Your task to perform on an android device: Open ESPN.com Image 0: 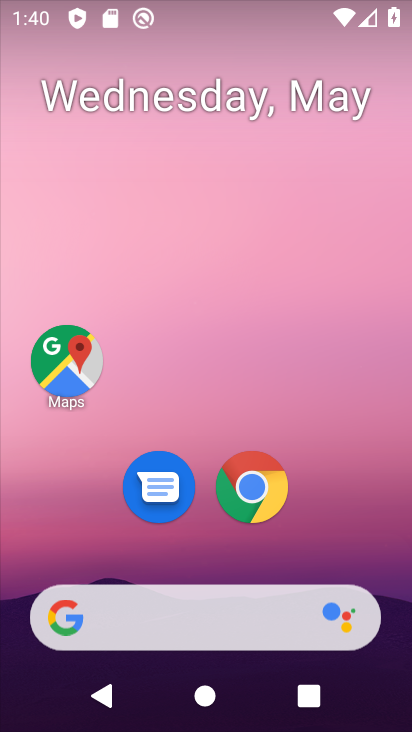
Step 0: click (244, 493)
Your task to perform on an android device: Open ESPN.com Image 1: 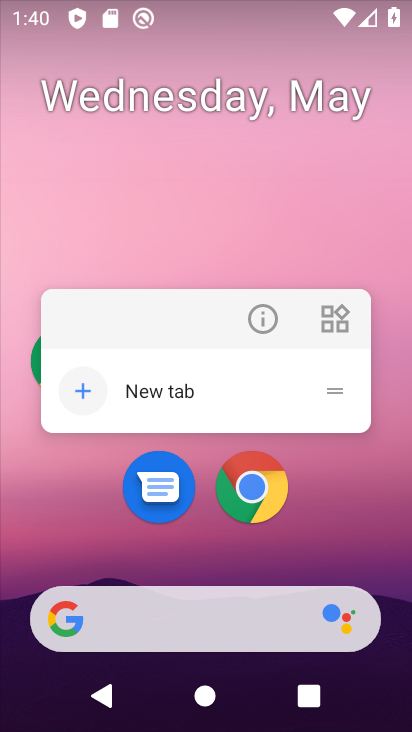
Step 1: click (255, 477)
Your task to perform on an android device: Open ESPN.com Image 2: 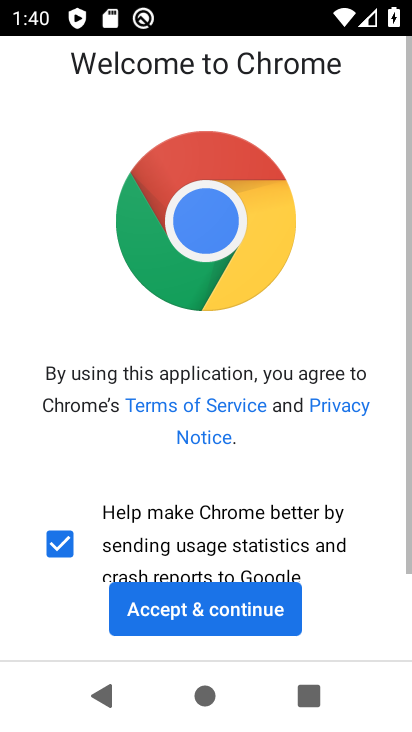
Step 2: click (260, 496)
Your task to perform on an android device: Open ESPN.com Image 3: 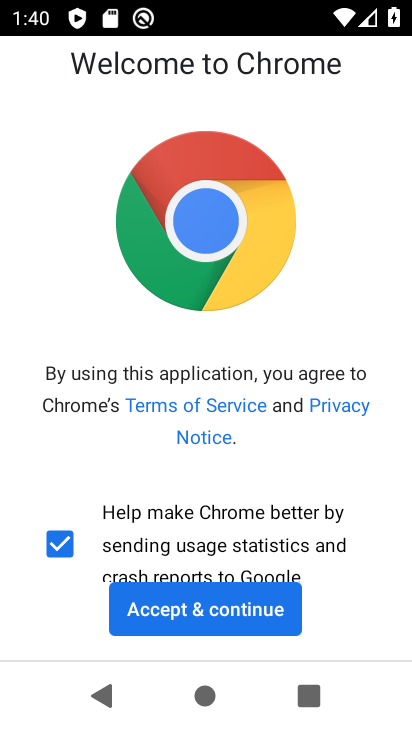
Step 3: click (154, 604)
Your task to perform on an android device: Open ESPN.com Image 4: 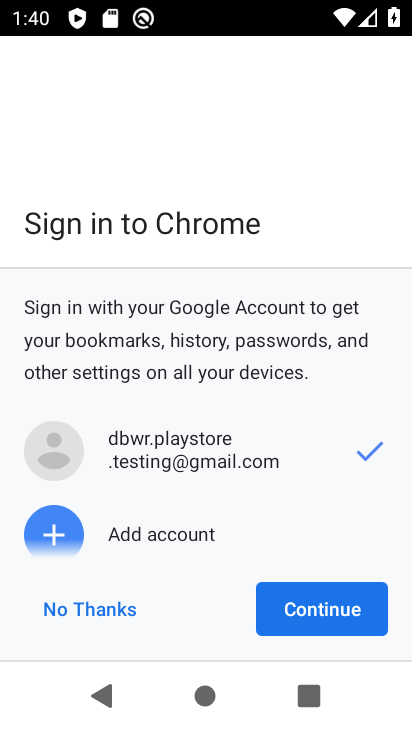
Step 4: click (327, 609)
Your task to perform on an android device: Open ESPN.com Image 5: 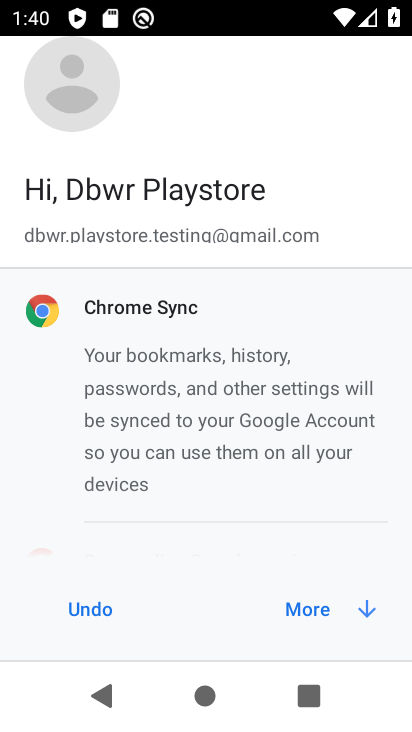
Step 5: click (307, 603)
Your task to perform on an android device: Open ESPN.com Image 6: 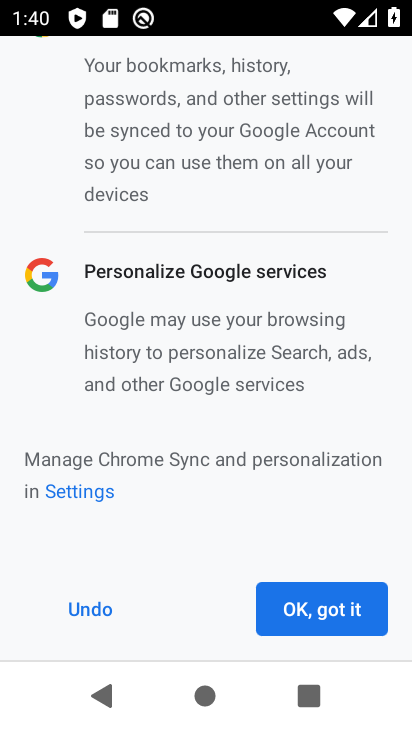
Step 6: click (307, 603)
Your task to perform on an android device: Open ESPN.com Image 7: 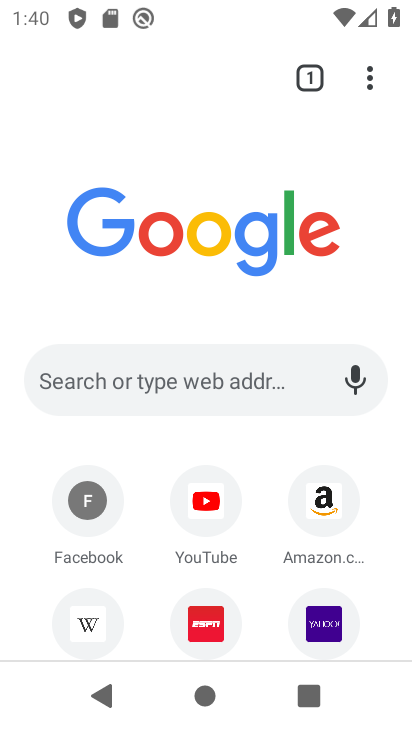
Step 7: drag from (259, 587) to (214, 290)
Your task to perform on an android device: Open ESPN.com Image 8: 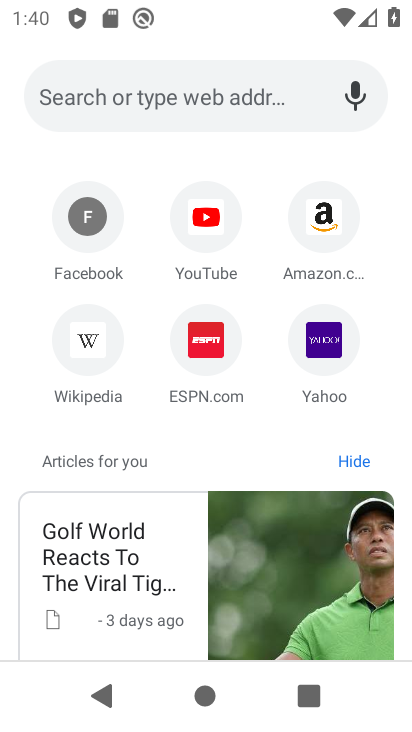
Step 8: click (209, 357)
Your task to perform on an android device: Open ESPN.com Image 9: 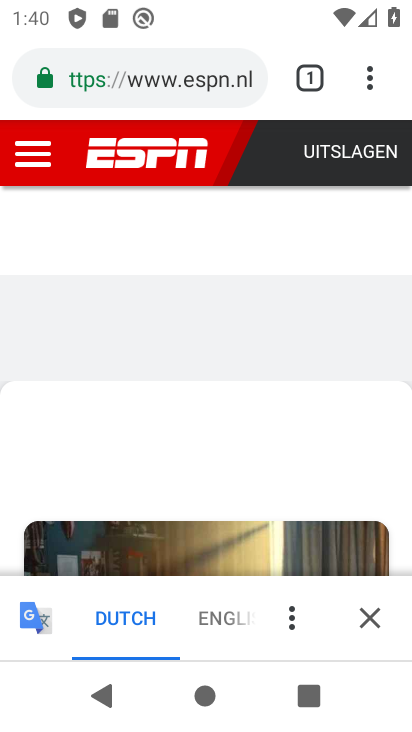
Step 9: task complete